Your task to perform on an android device: Go to calendar. Show me events next week Image 0: 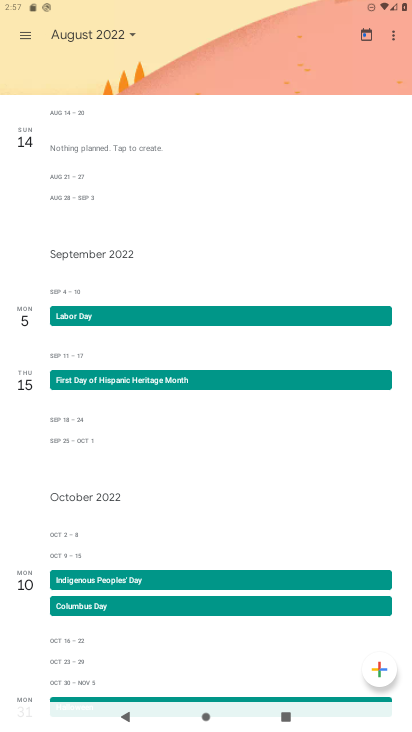
Step 0: press home button
Your task to perform on an android device: Go to calendar. Show me events next week Image 1: 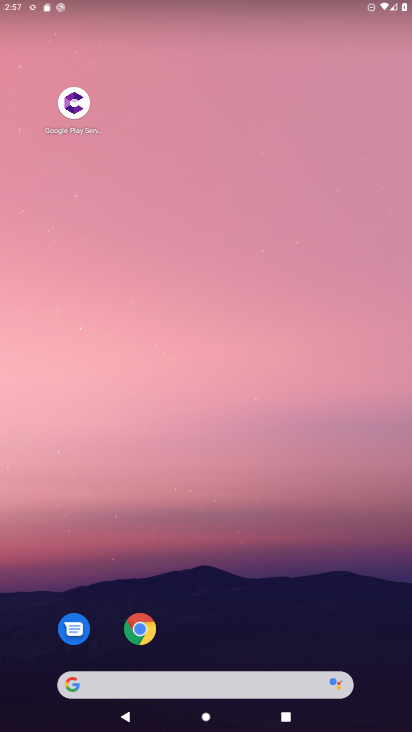
Step 1: drag from (306, 459) to (255, 19)
Your task to perform on an android device: Go to calendar. Show me events next week Image 2: 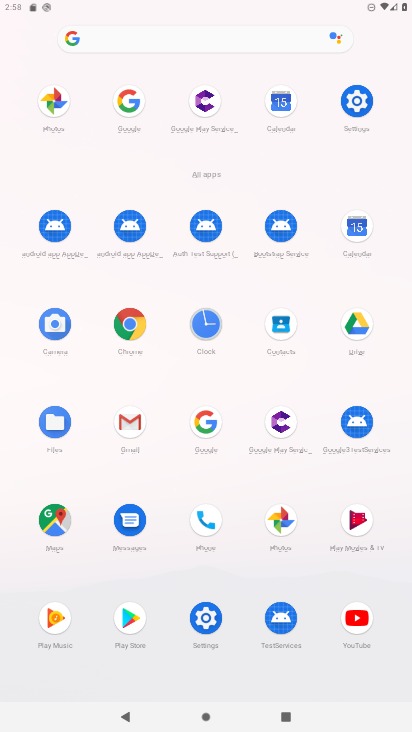
Step 2: click (341, 229)
Your task to perform on an android device: Go to calendar. Show me events next week Image 3: 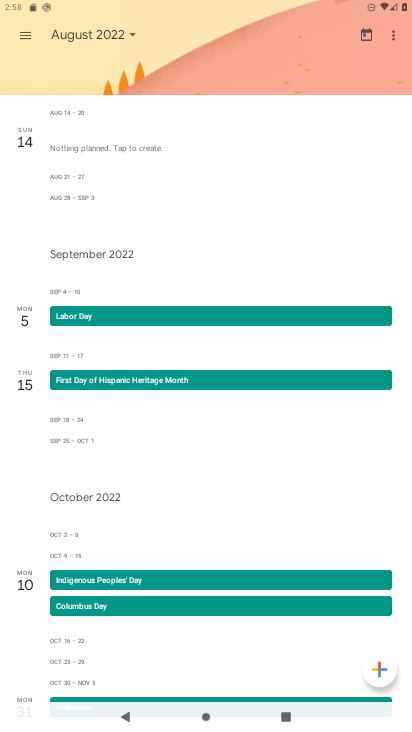
Step 3: click (59, 35)
Your task to perform on an android device: Go to calendar. Show me events next week Image 4: 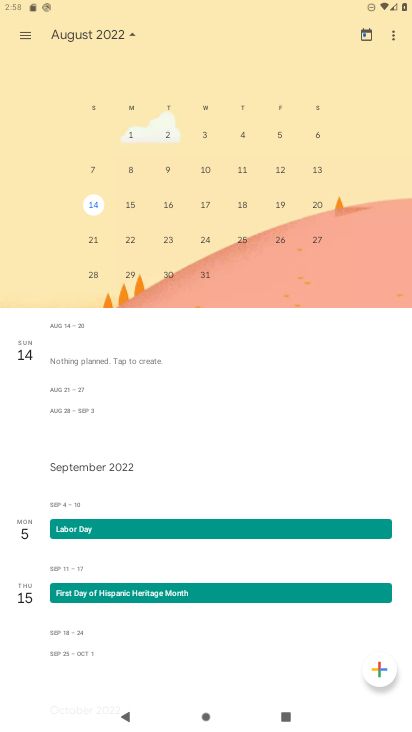
Step 4: task complete